Your task to perform on an android device: change notifications settings Image 0: 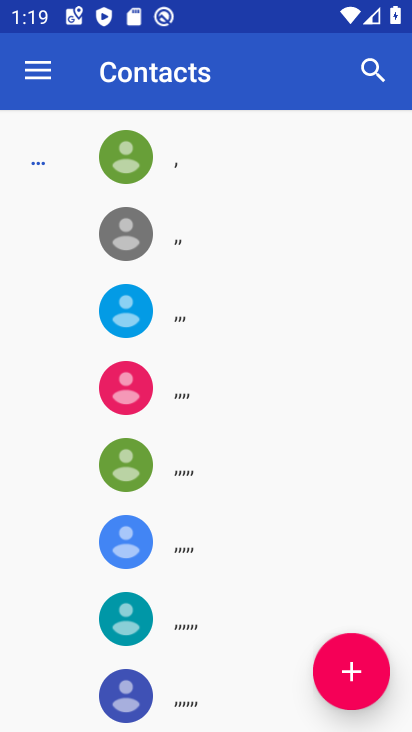
Step 0: press home button
Your task to perform on an android device: change notifications settings Image 1: 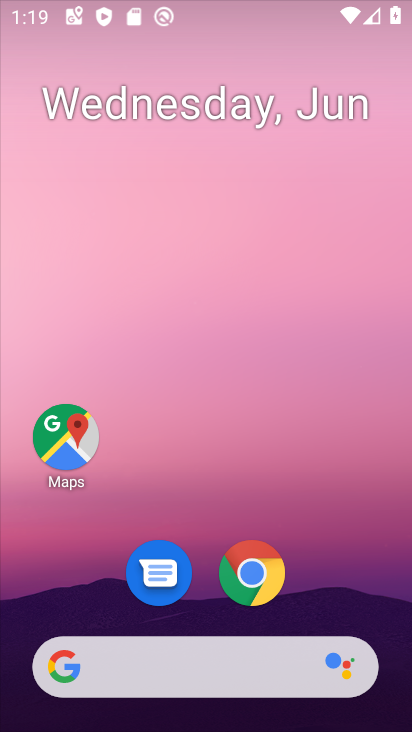
Step 1: drag from (370, 611) to (371, 176)
Your task to perform on an android device: change notifications settings Image 2: 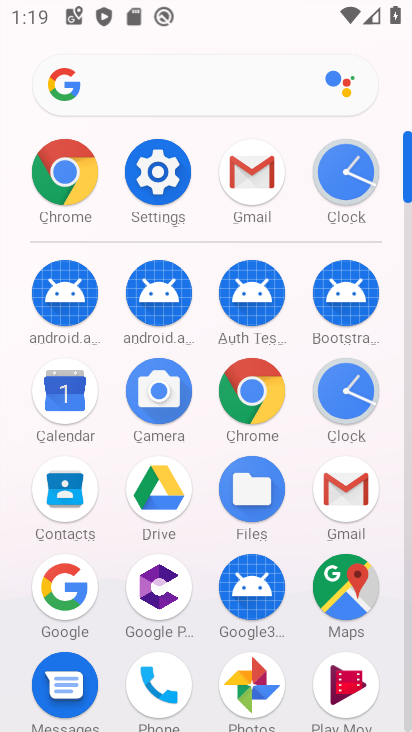
Step 2: click (140, 186)
Your task to perform on an android device: change notifications settings Image 3: 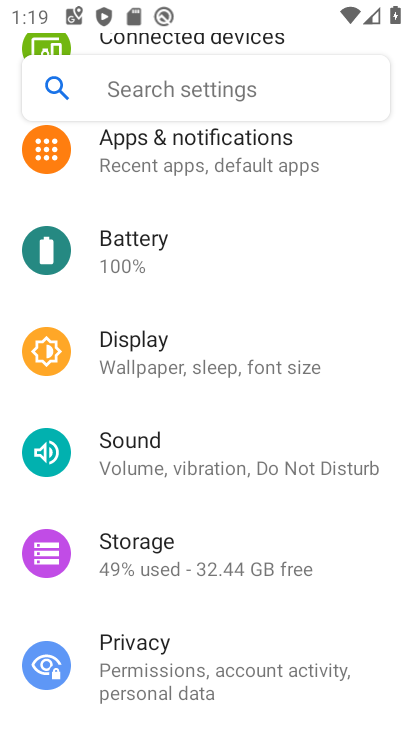
Step 3: click (170, 166)
Your task to perform on an android device: change notifications settings Image 4: 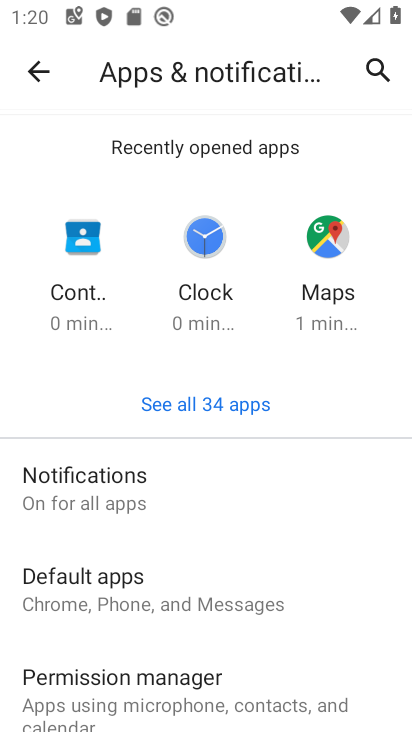
Step 4: click (115, 519)
Your task to perform on an android device: change notifications settings Image 5: 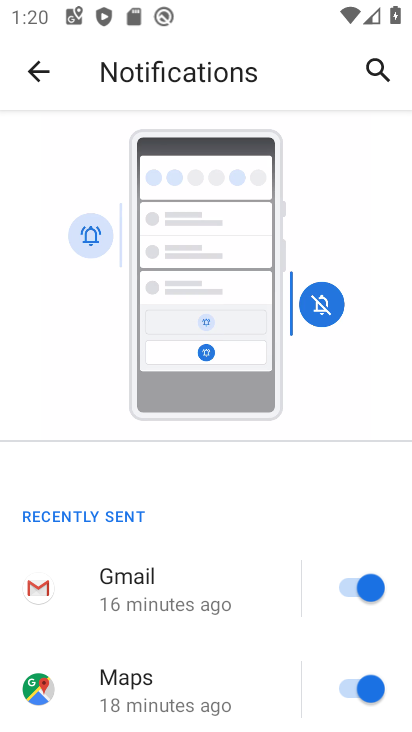
Step 5: task complete